Your task to perform on an android device: turn off improve location accuracy Image 0: 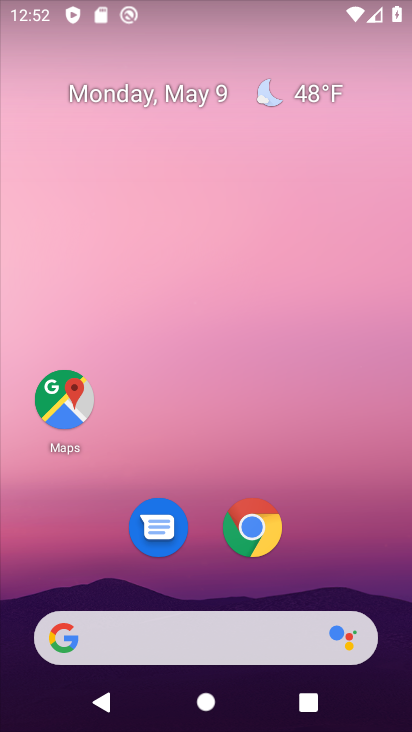
Step 0: drag from (216, 596) to (242, 49)
Your task to perform on an android device: turn off improve location accuracy Image 1: 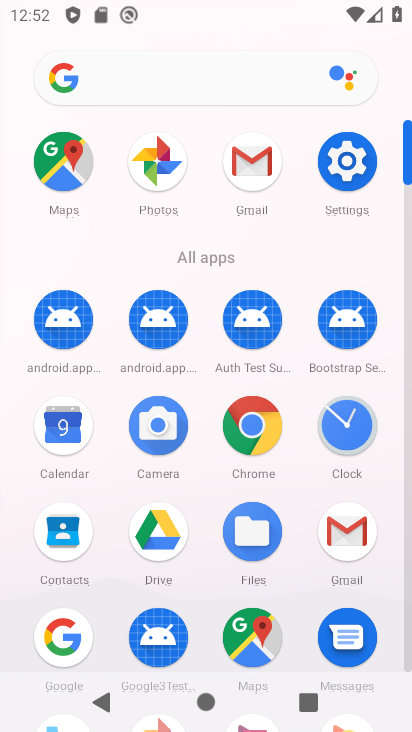
Step 1: click (346, 164)
Your task to perform on an android device: turn off improve location accuracy Image 2: 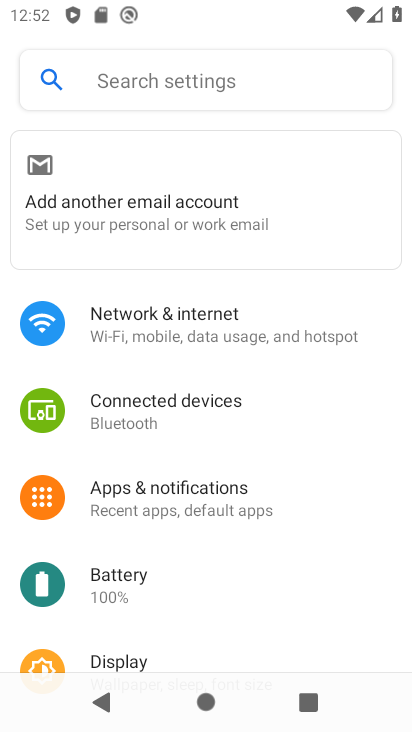
Step 2: drag from (199, 571) to (276, 176)
Your task to perform on an android device: turn off improve location accuracy Image 3: 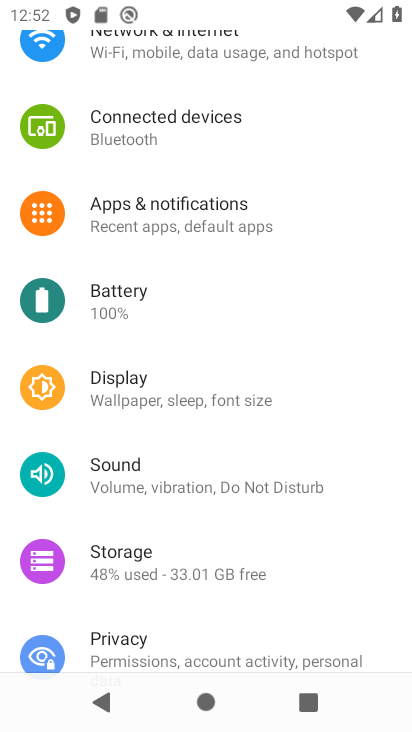
Step 3: drag from (167, 466) to (224, 197)
Your task to perform on an android device: turn off improve location accuracy Image 4: 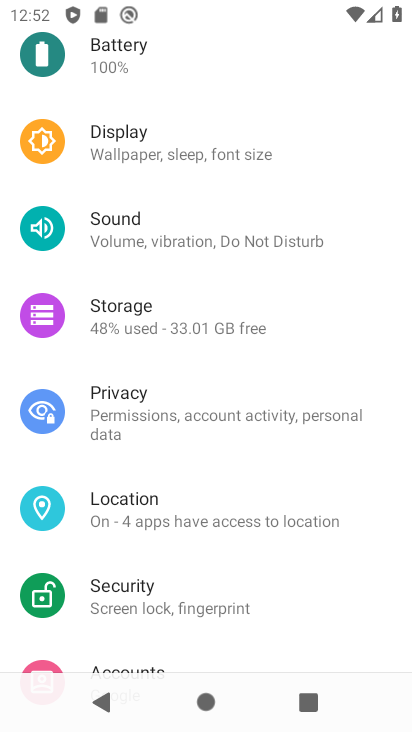
Step 4: click (161, 506)
Your task to perform on an android device: turn off improve location accuracy Image 5: 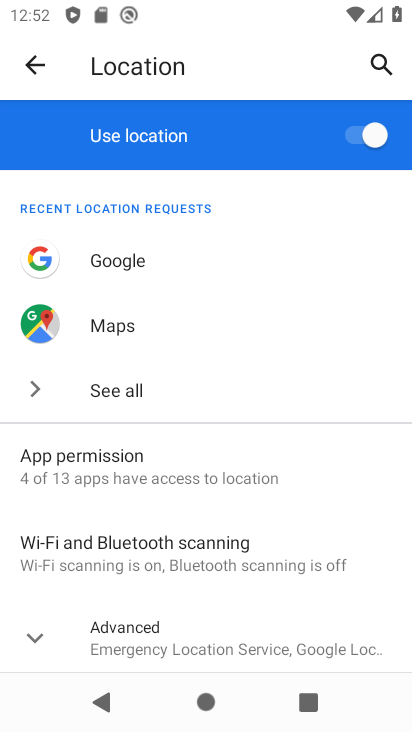
Step 5: click (118, 627)
Your task to perform on an android device: turn off improve location accuracy Image 6: 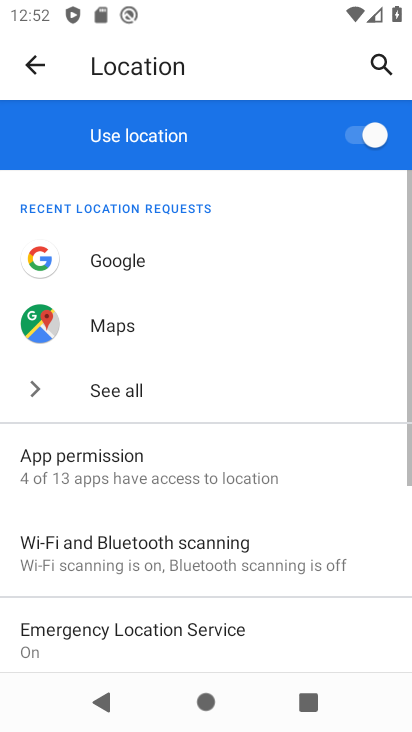
Step 6: drag from (116, 635) to (183, 368)
Your task to perform on an android device: turn off improve location accuracy Image 7: 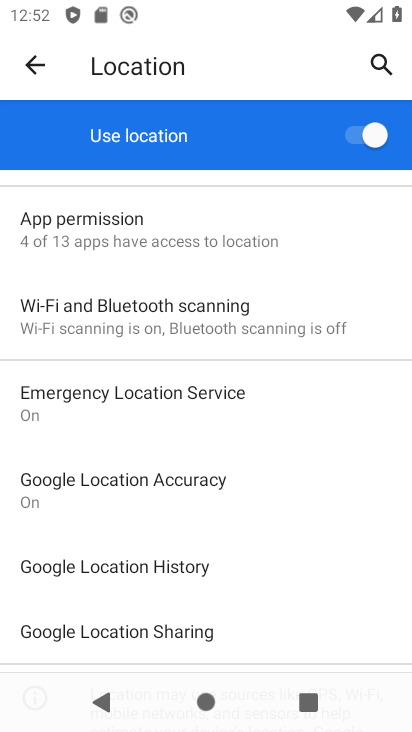
Step 7: click (160, 485)
Your task to perform on an android device: turn off improve location accuracy Image 8: 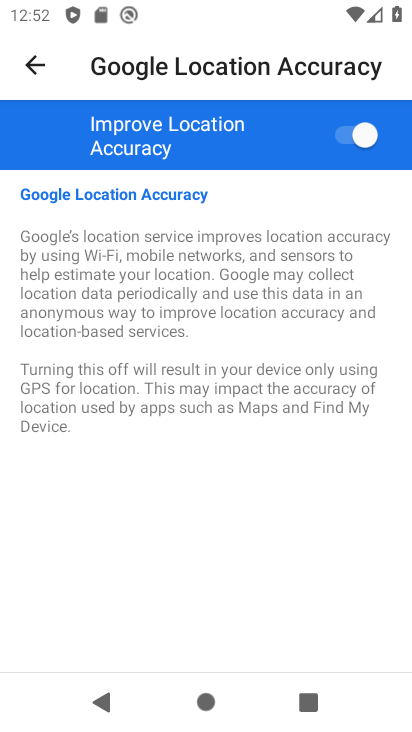
Step 8: click (339, 139)
Your task to perform on an android device: turn off improve location accuracy Image 9: 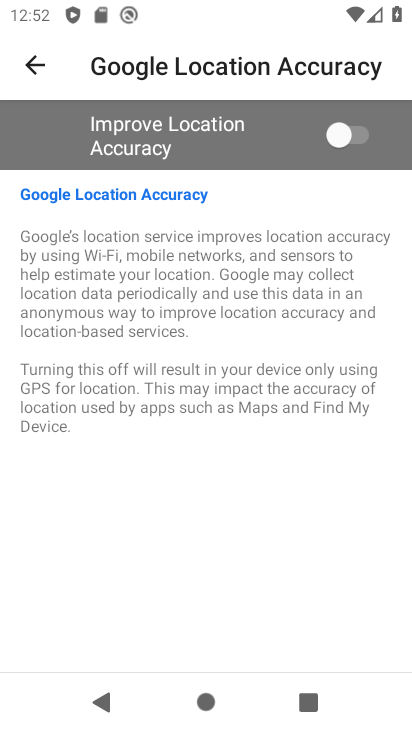
Step 9: task complete